Your task to perform on an android device: make emails show in primary in the gmail app Image 0: 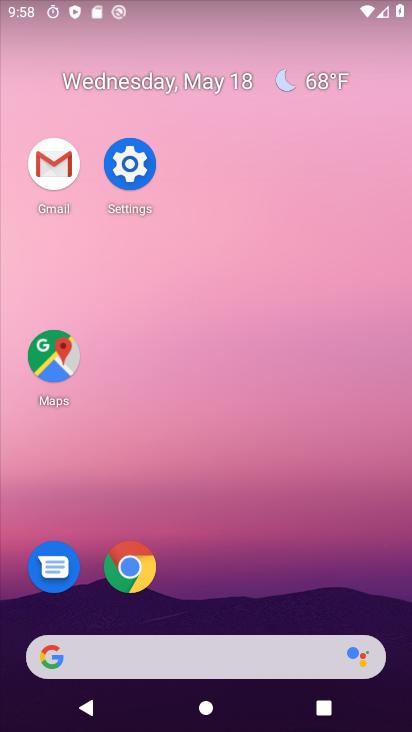
Step 0: drag from (256, 536) to (211, 171)
Your task to perform on an android device: make emails show in primary in the gmail app Image 1: 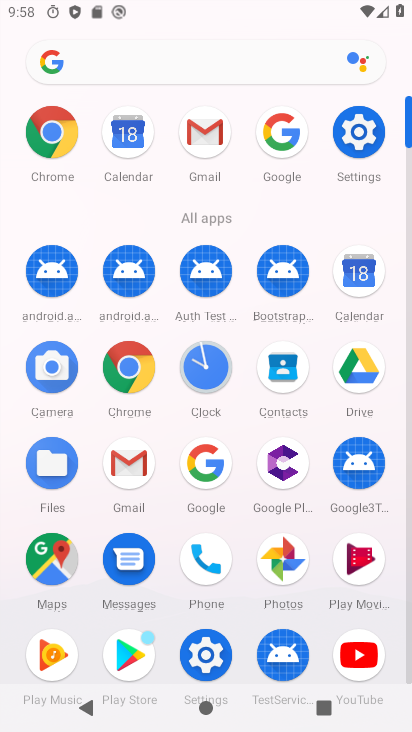
Step 1: drag from (137, 455) to (4, 331)
Your task to perform on an android device: make emails show in primary in the gmail app Image 2: 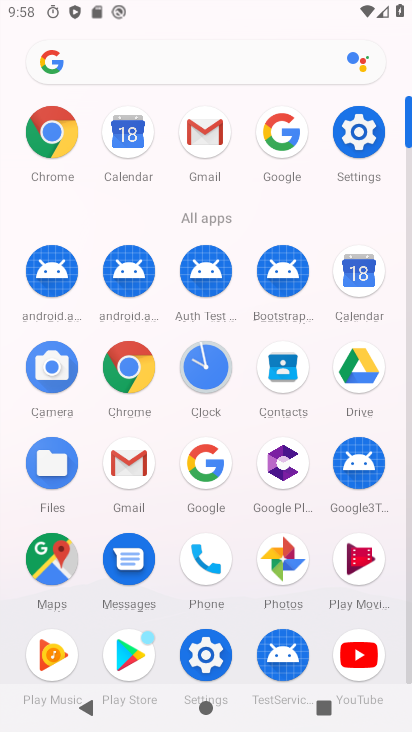
Step 2: drag from (129, 458) to (204, 223)
Your task to perform on an android device: make emails show in primary in the gmail app Image 3: 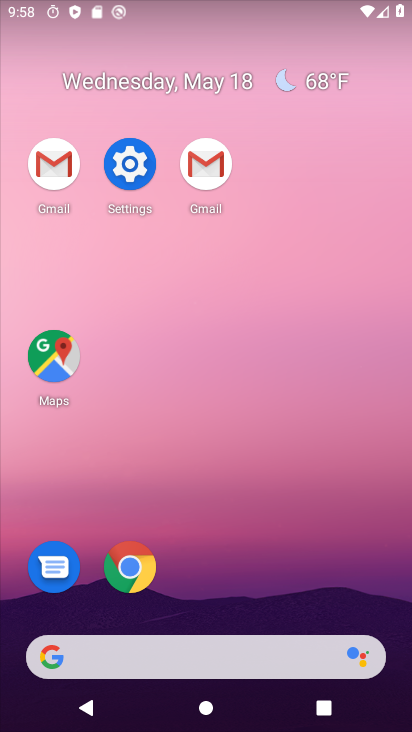
Step 3: click (200, 176)
Your task to perform on an android device: make emails show in primary in the gmail app Image 4: 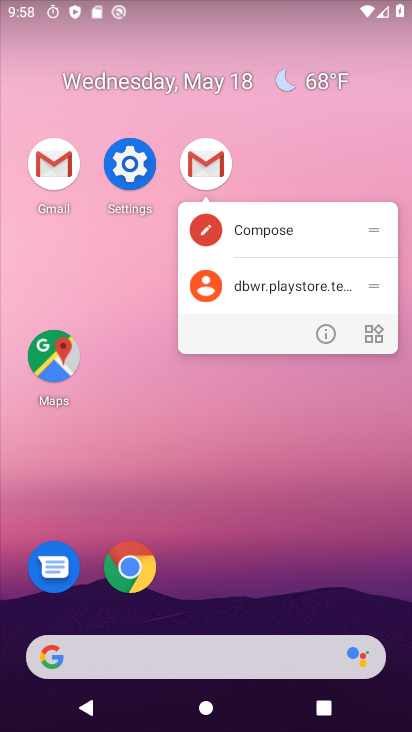
Step 4: click (208, 167)
Your task to perform on an android device: make emails show in primary in the gmail app Image 5: 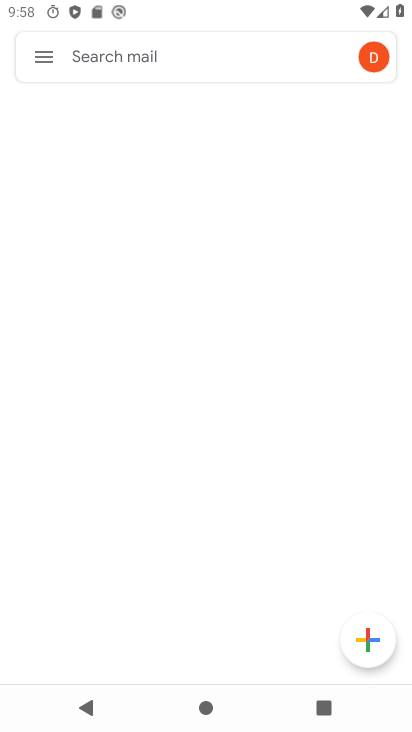
Step 5: click (61, 78)
Your task to perform on an android device: make emails show in primary in the gmail app Image 6: 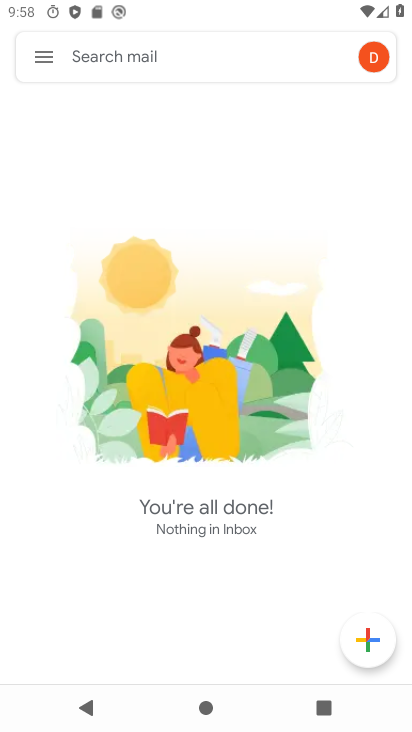
Step 6: click (46, 71)
Your task to perform on an android device: make emails show in primary in the gmail app Image 7: 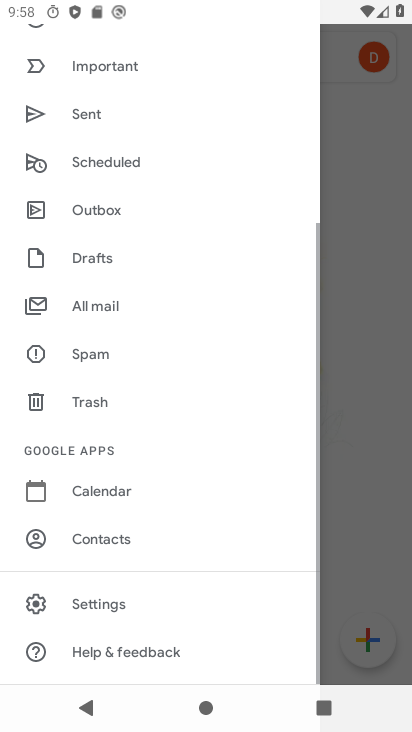
Step 7: drag from (256, 554) to (230, 157)
Your task to perform on an android device: make emails show in primary in the gmail app Image 8: 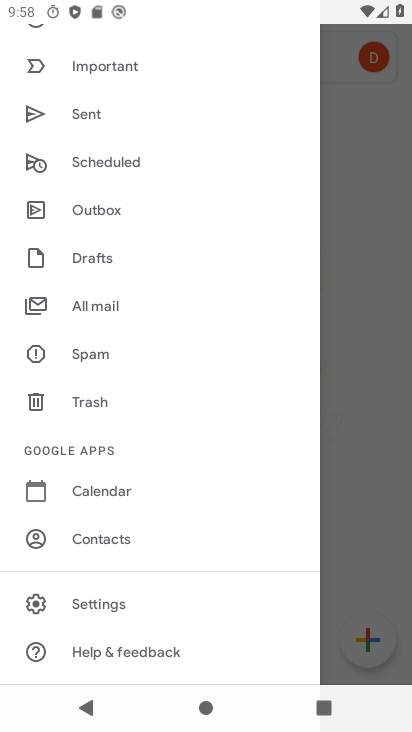
Step 8: click (122, 608)
Your task to perform on an android device: make emails show in primary in the gmail app Image 9: 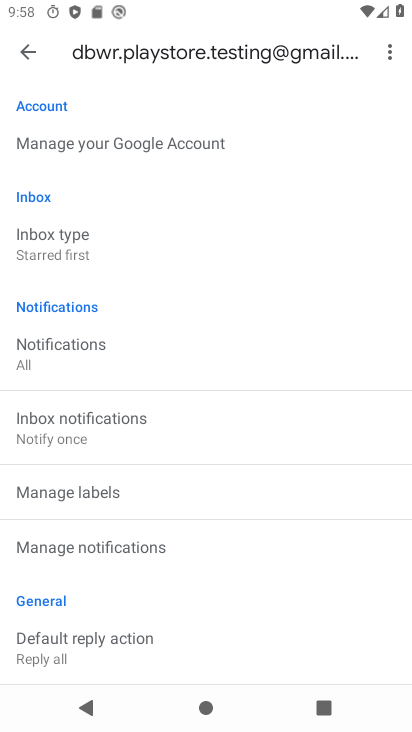
Step 9: click (119, 241)
Your task to perform on an android device: make emails show in primary in the gmail app Image 10: 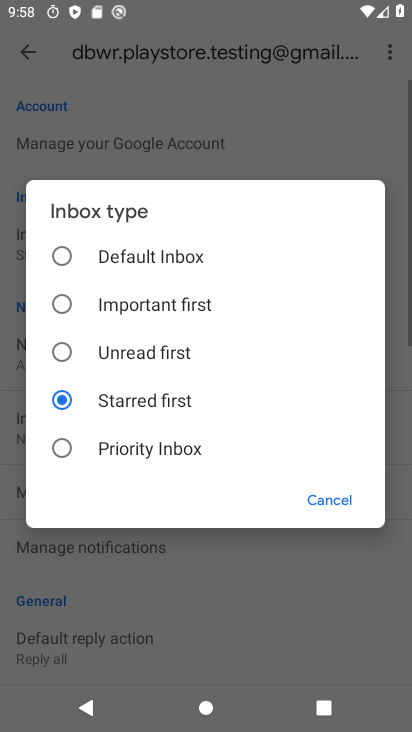
Step 10: click (123, 249)
Your task to perform on an android device: make emails show in primary in the gmail app Image 11: 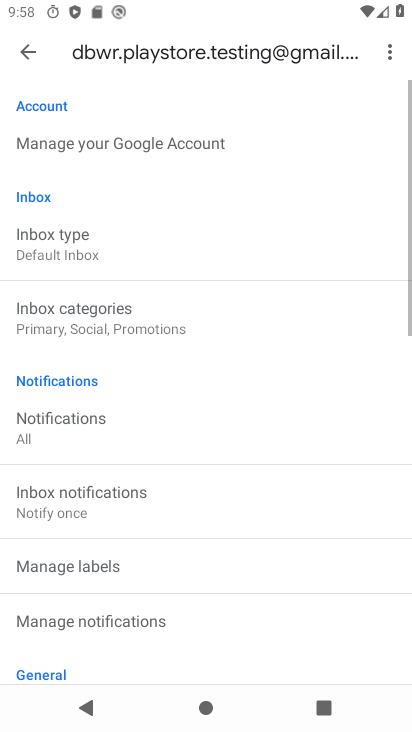
Step 11: click (163, 318)
Your task to perform on an android device: make emails show in primary in the gmail app Image 12: 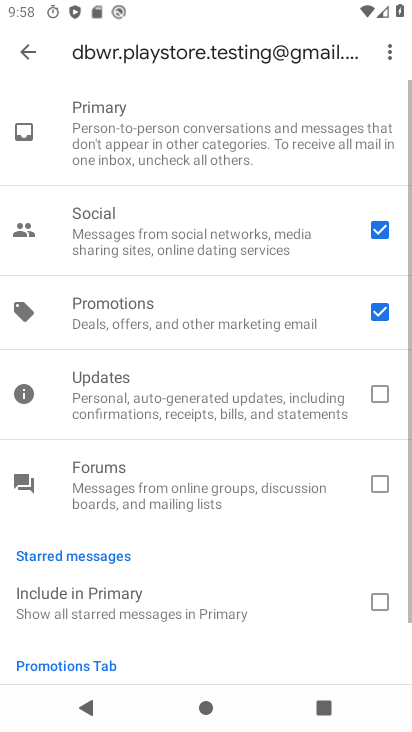
Step 12: click (382, 316)
Your task to perform on an android device: make emails show in primary in the gmail app Image 13: 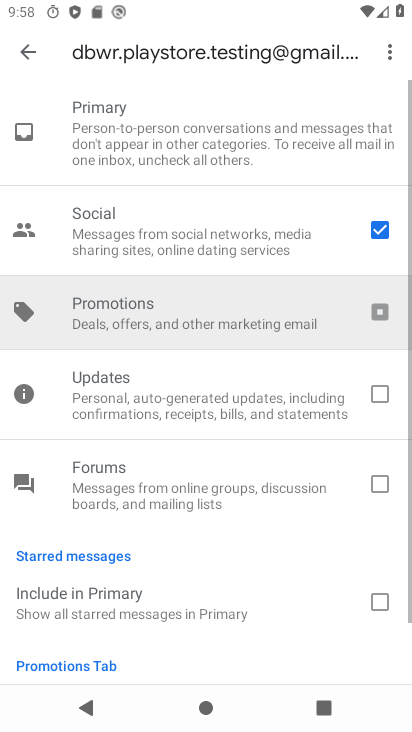
Step 13: click (379, 235)
Your task to perform on an android device: make emails show in primary in the gmail app Image 14: 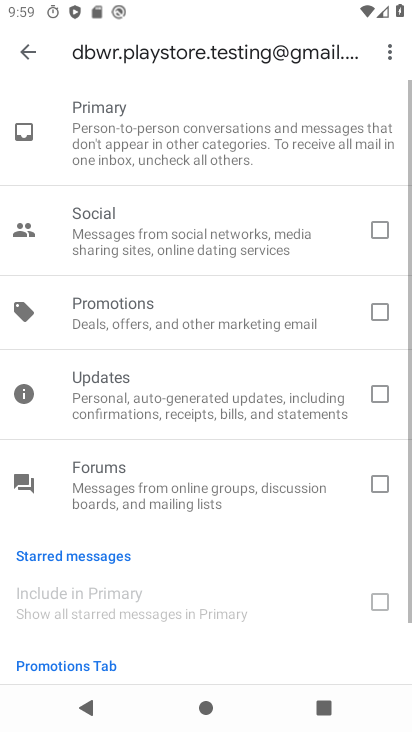
Step 14: click (16, 49)
Your task to perform on an android device: make emails show in primary in the gmail app Image 15: 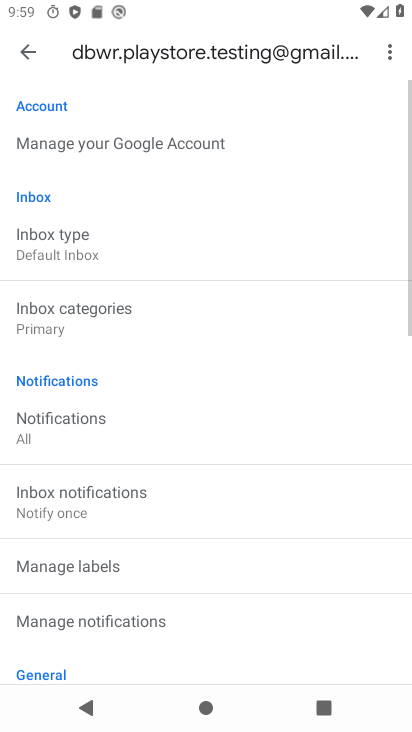
Step 15: task complete